Your task to perform on an android device: Open location settings Image 0: 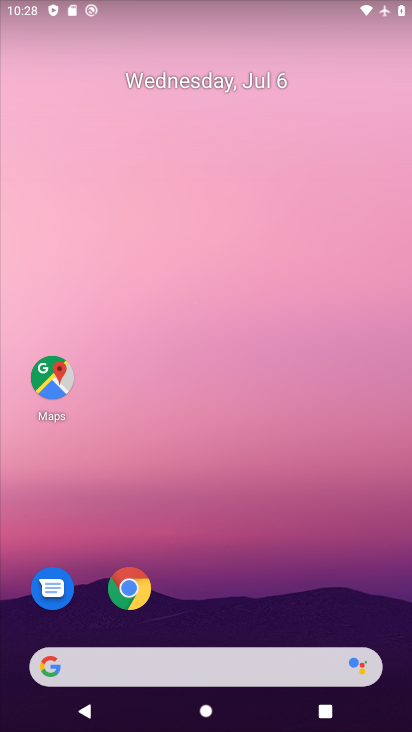
Step 0: drag from (184, 665) to (235, 106)
Your task to perform on an android device: Open location settings Image 1: 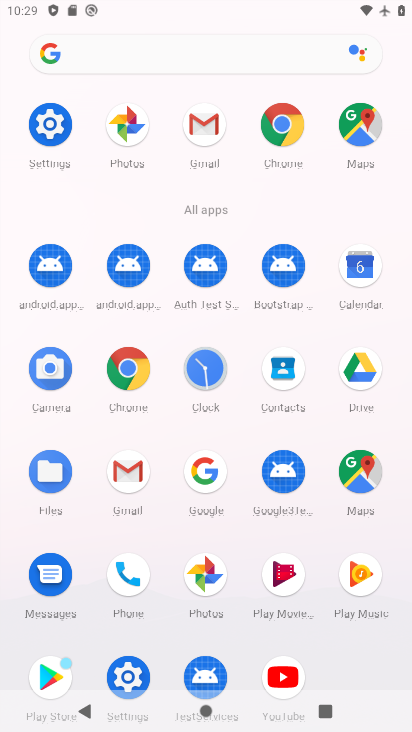
Step 1: click (48, 129)
Your task to perform on an android device: Open location settings Image 2: 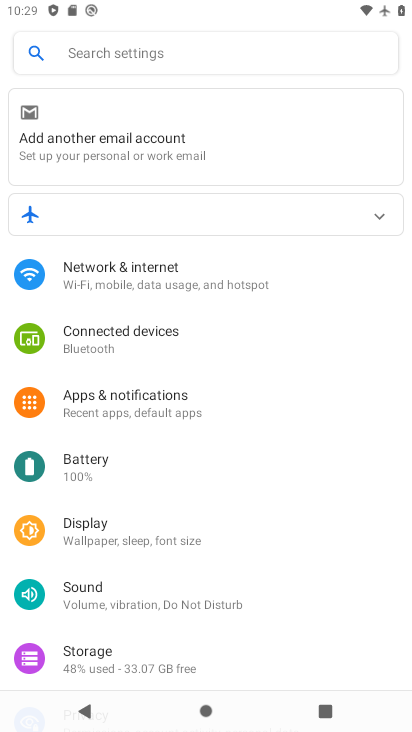
Step 2: drag from (165, 655) to (239, 140)
Your task to perform on an android device: Open location settings Image 3: 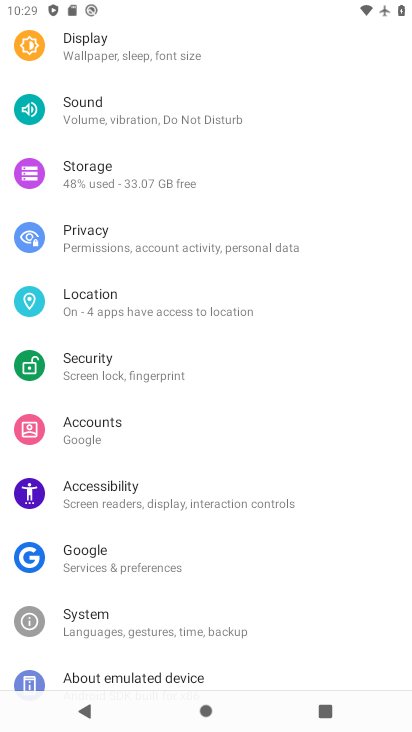
Step 3: click (117, 305)
Your task to perform on an android device: Open location settings Image 4: 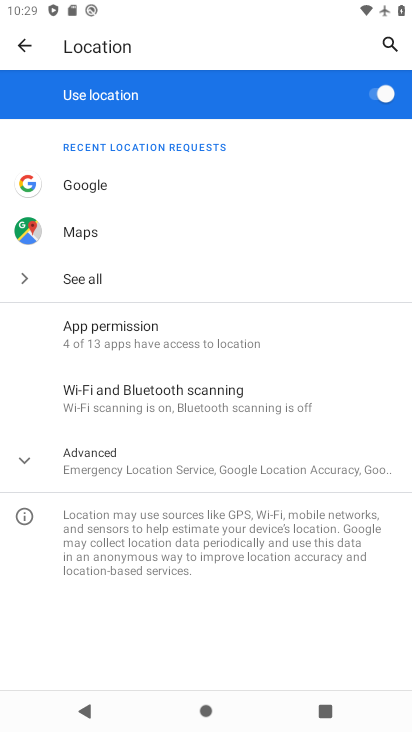
Step 4: task complete